Your task to perform on an android device: uninstall "Walmart Shopping & Grocery" Image 0: 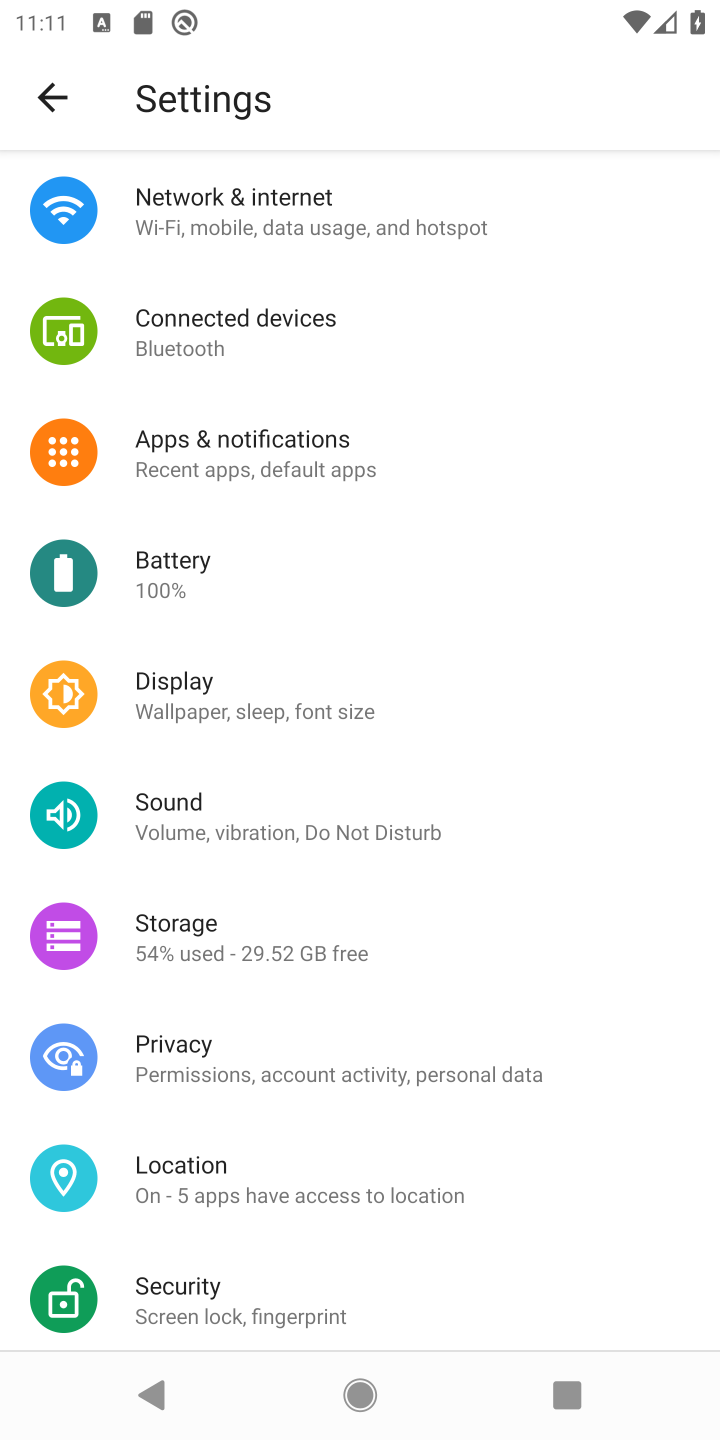
Step 0: press home button
Your task to perform on an android device: uninstall "Walmart Shopping & Grocery" Image 1: 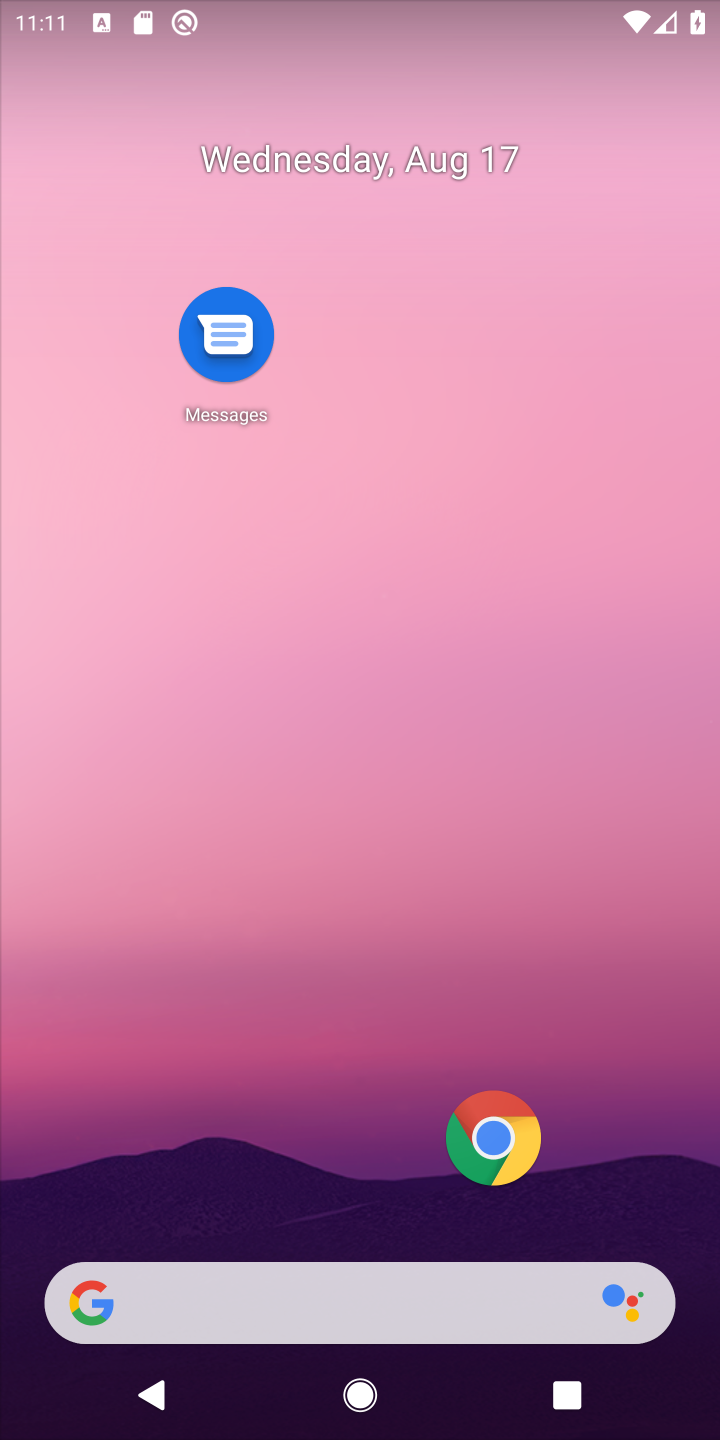
Step 1: click (223, 8)
Your task to perform on an android device: uninstall "Walmart Shopping & Grocery" Image 2: 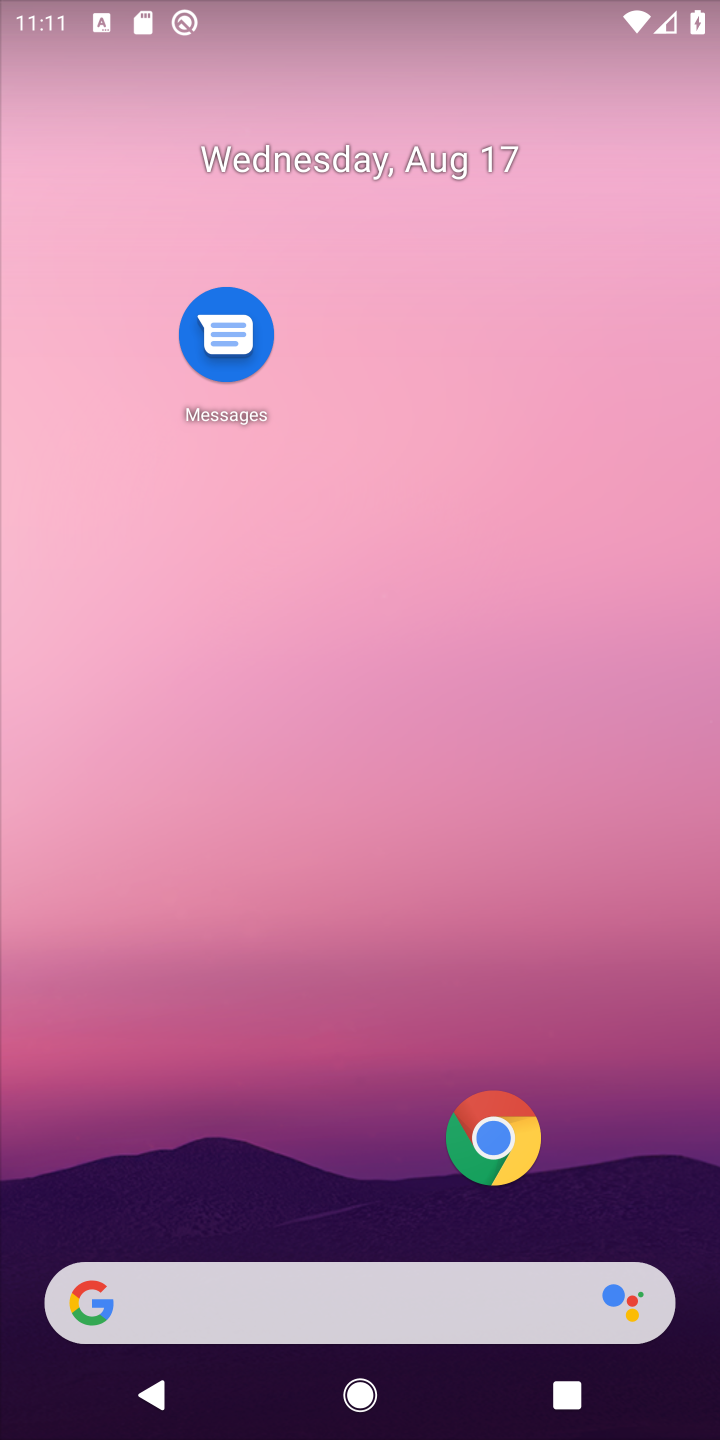
Step 2: drag from (304, 1241) to (311, 282)
Your task to perform on an android device: uninstall "Walmart Shopping & Grocery" Image 3: 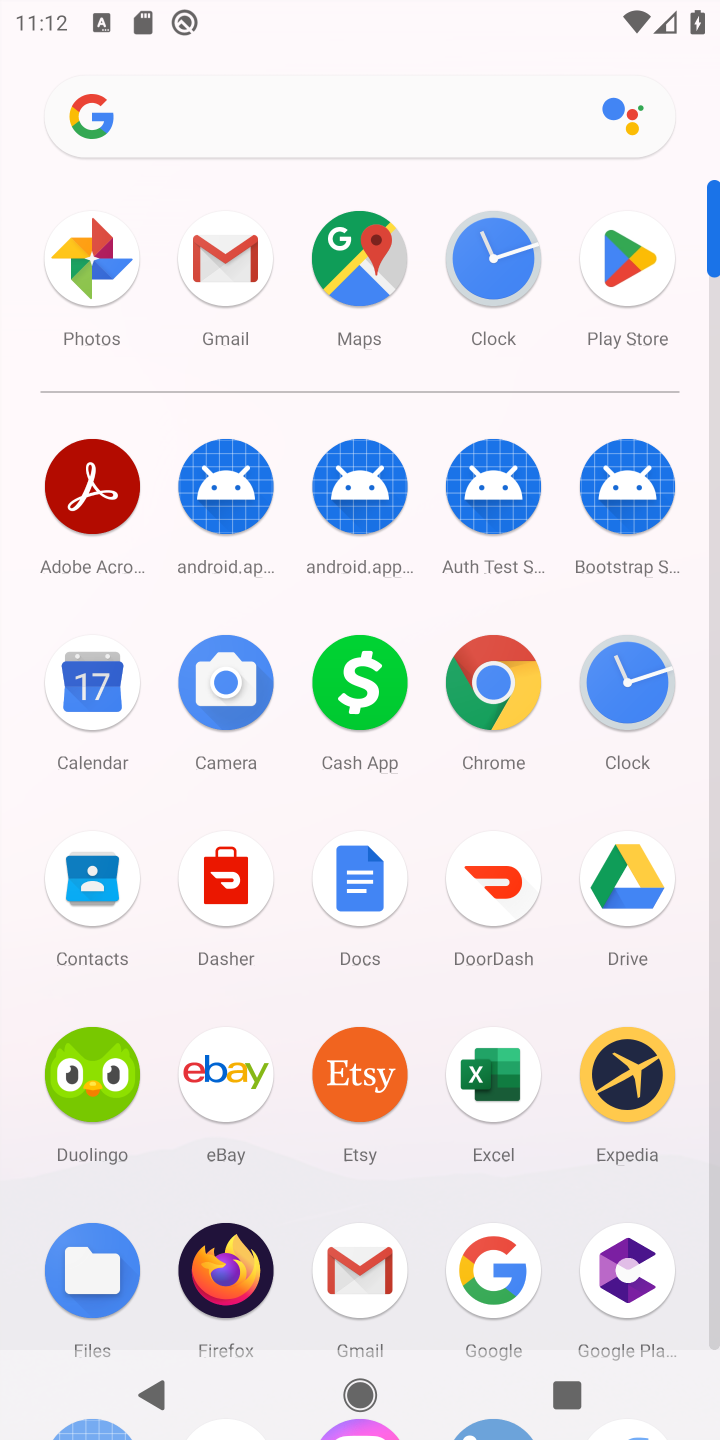
Step 3: click (643, 273)
Your task to perform on an android device: uninstall "Walmart Shopping & Grocery" Image 4: 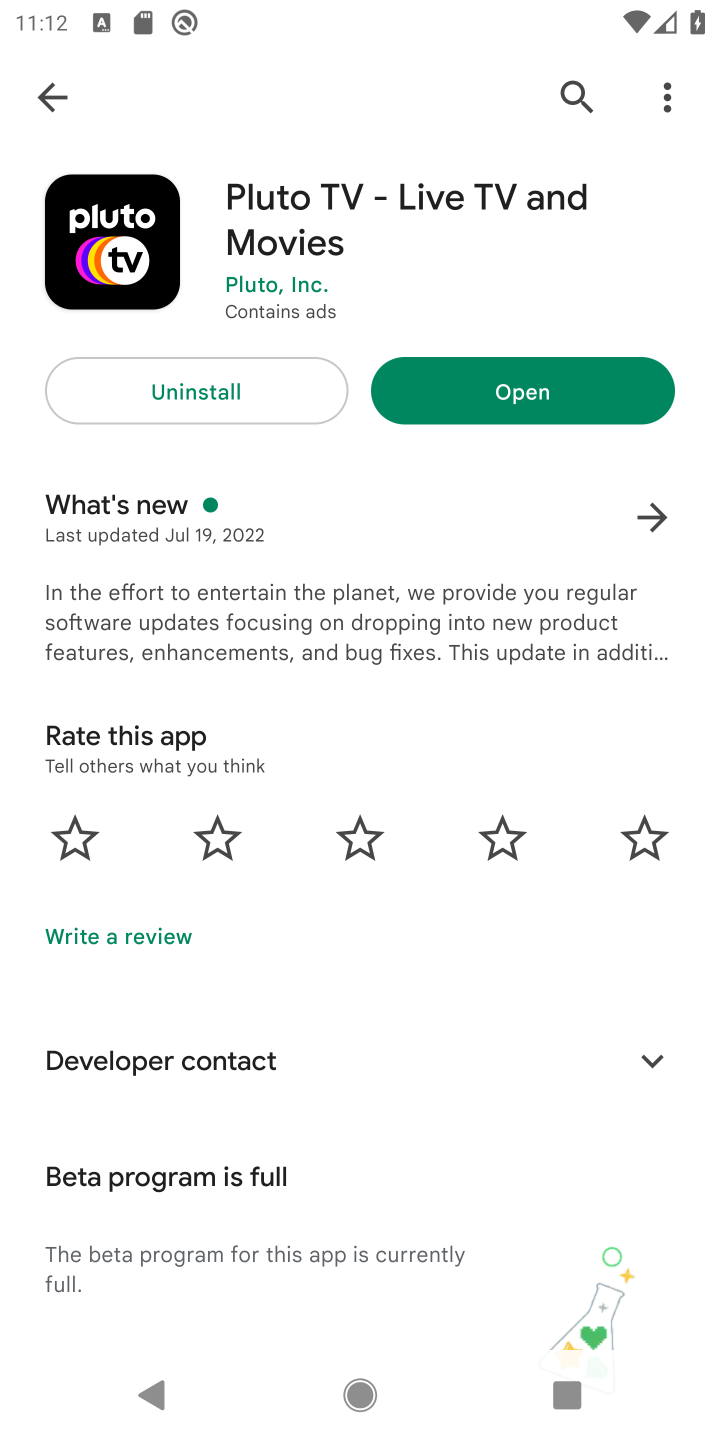
Step 4: click (54, 71)
Your task to perform on an android device: uninstall "Walmart Shopping & Grocery" Image 5: 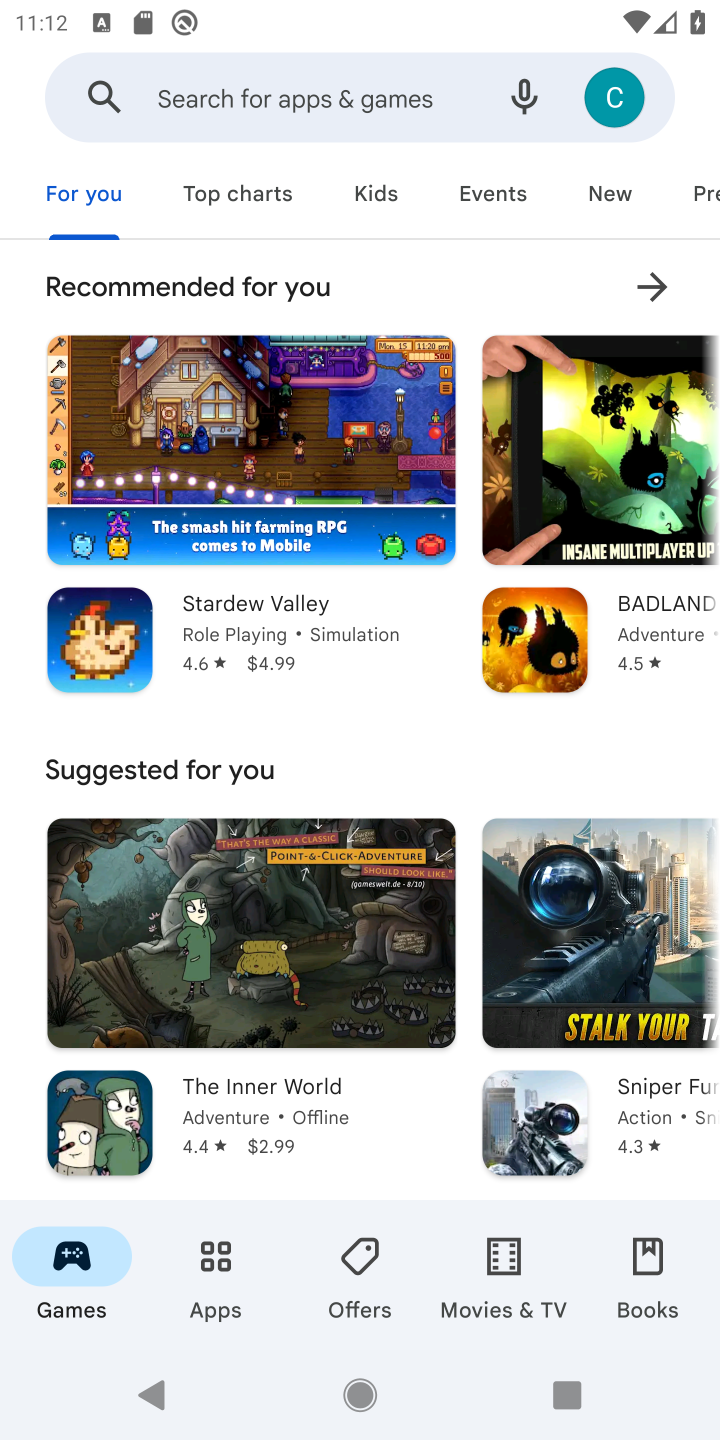
Step 5: click (288, 81)
Your task to perform on an android device: uninstall "Walmart Shopping & Grocery" Image 6: 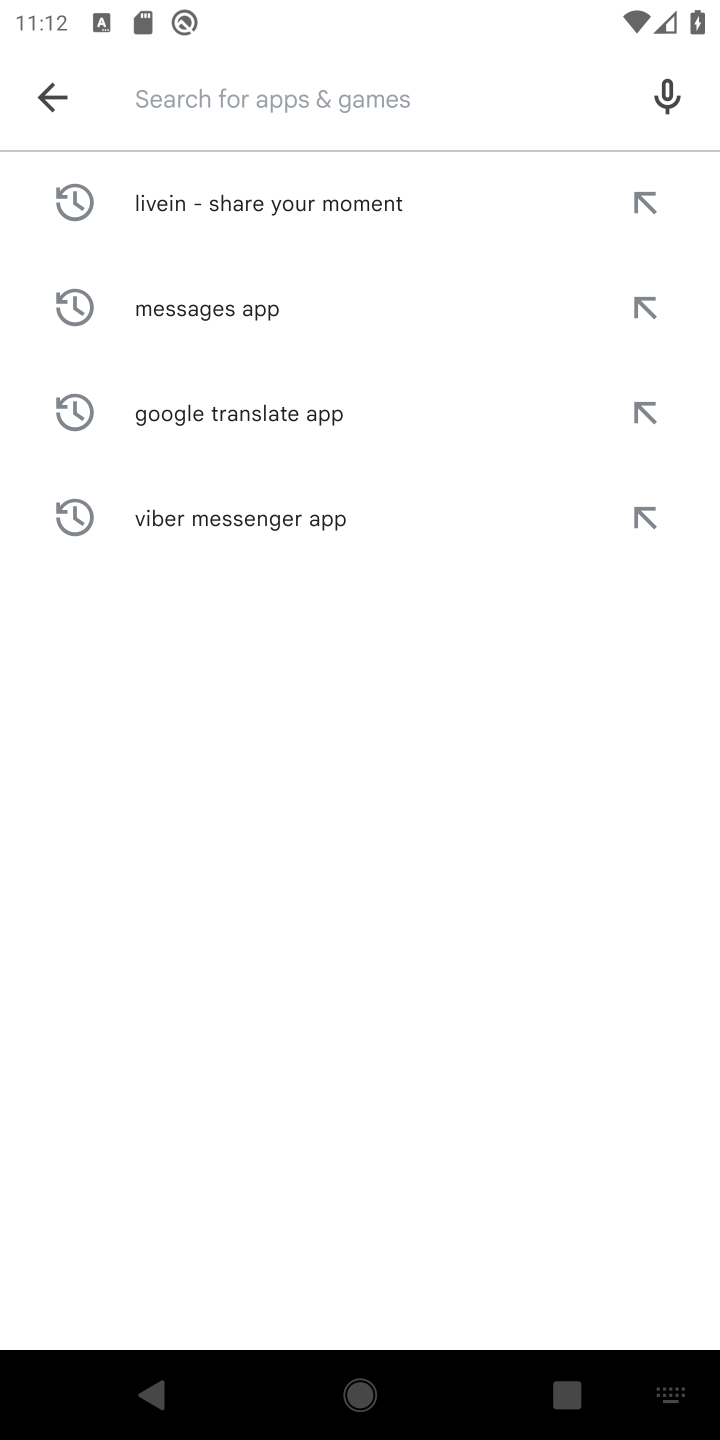
Step 6: type "Walmart Shopping & Grocery "
Your task to perform on an android device: uninstall "Walmart Shopping & Grocery" Image 7: 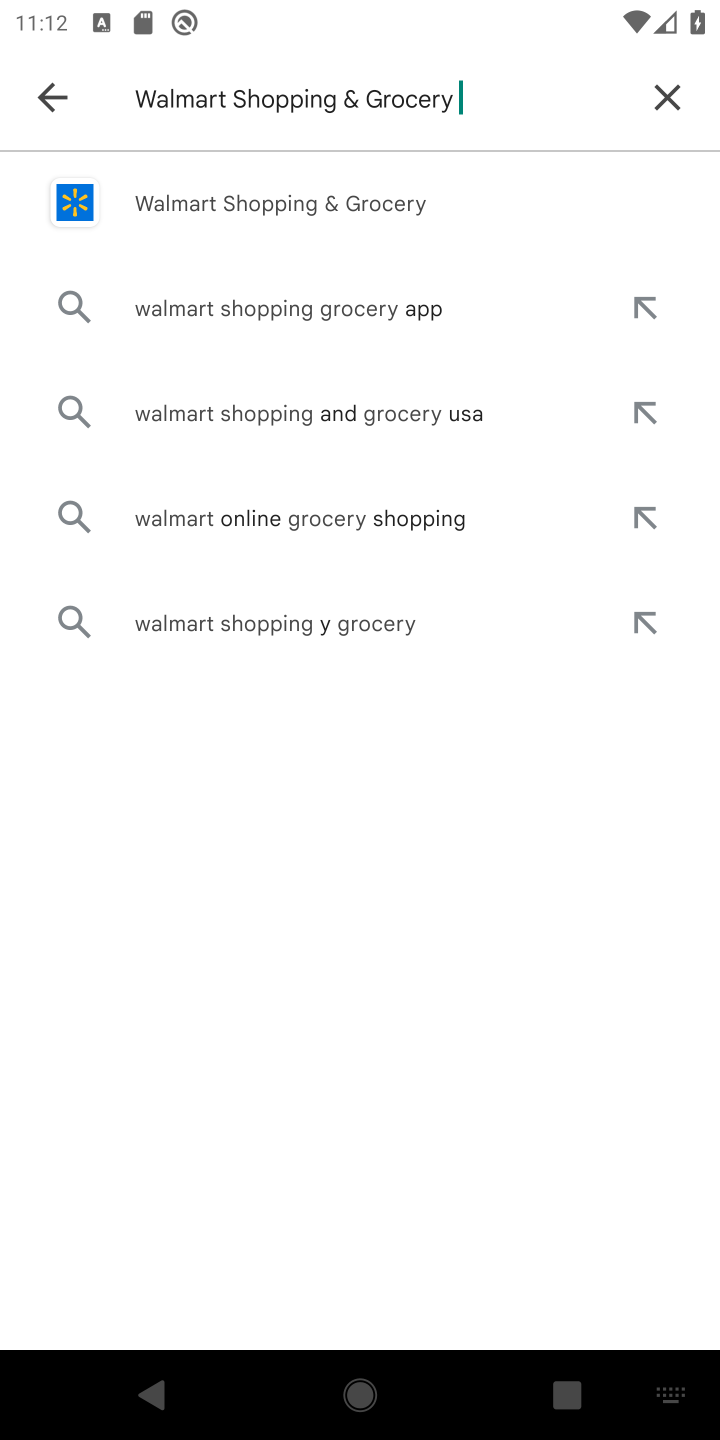
Step 7: click (316, 192)
Your task to perform on an android device: uninstall "Walmart Shopping & Grocery" Image 8: 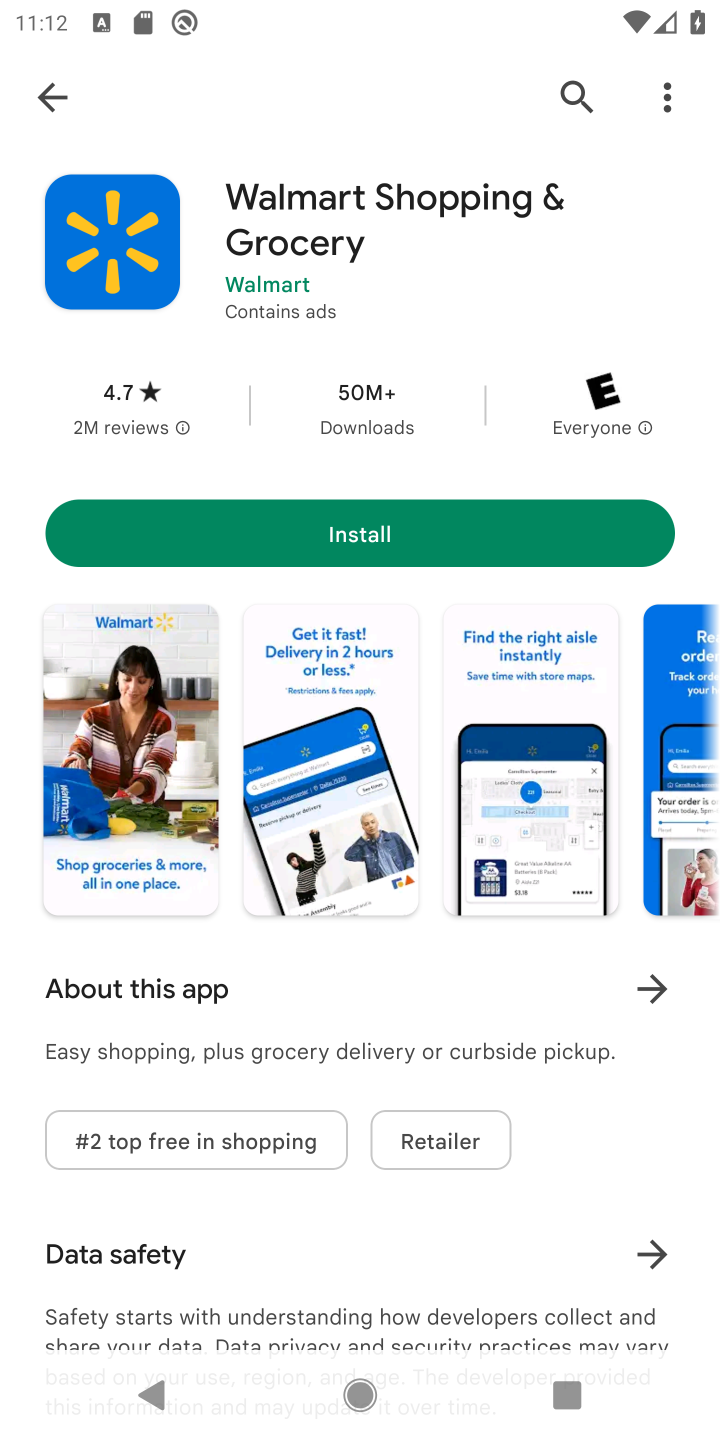
Step 8: task complete